Your task to perform on an android device: toggle data saver in the chrome app Image 0: 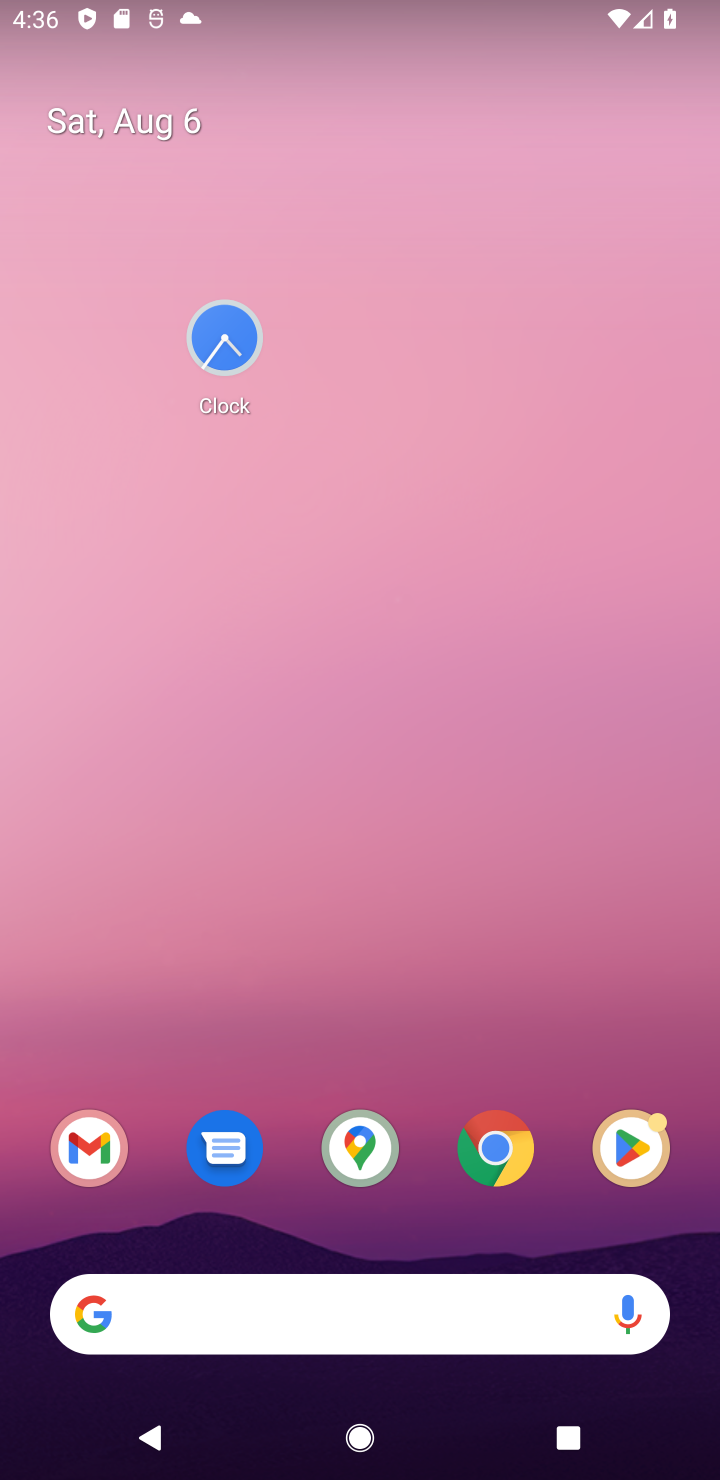
Step 0: click (564, 283)
Your task to perform on an android device: toggle data saver in the chrome app Image 1: 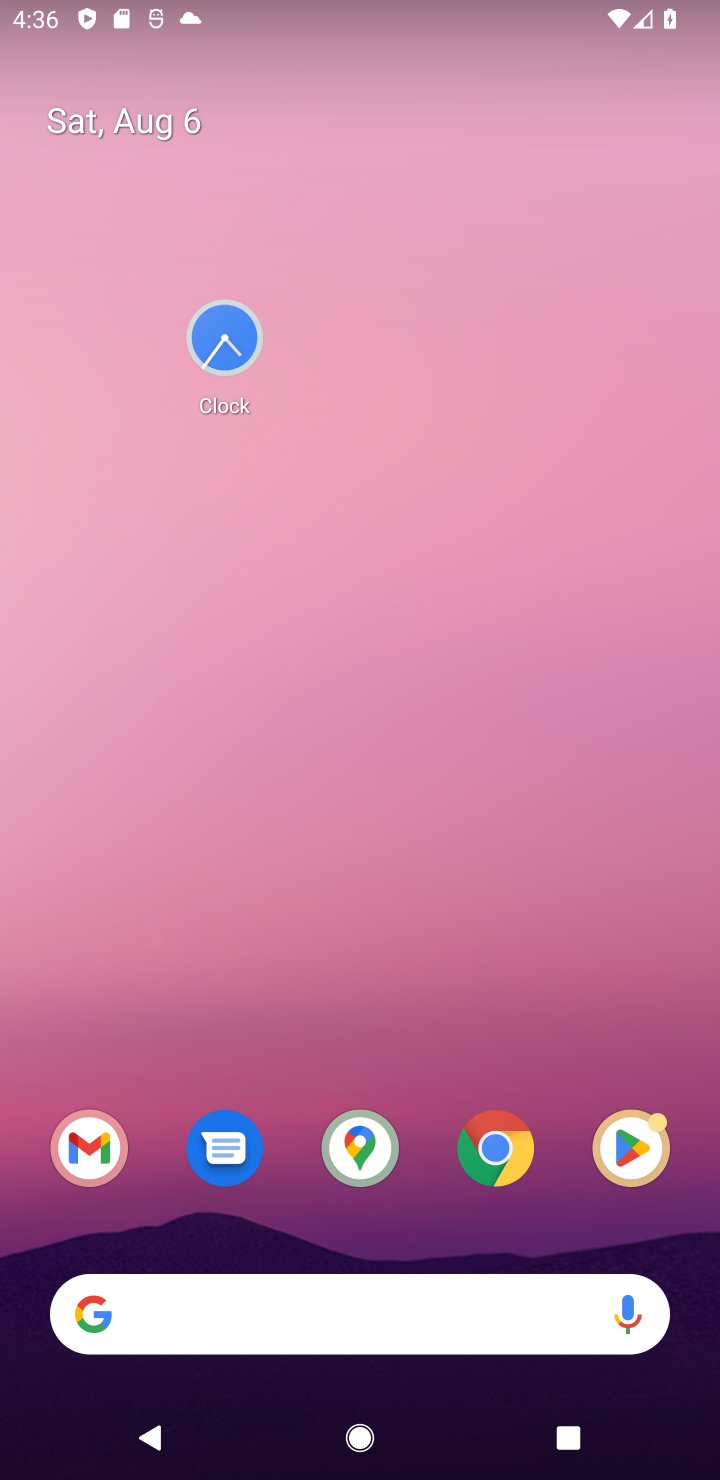
Step 1: drag from (334, 1220) to (329, 648)
Your task to perform on an android device: toggle data saver in the chrome app Image 2: 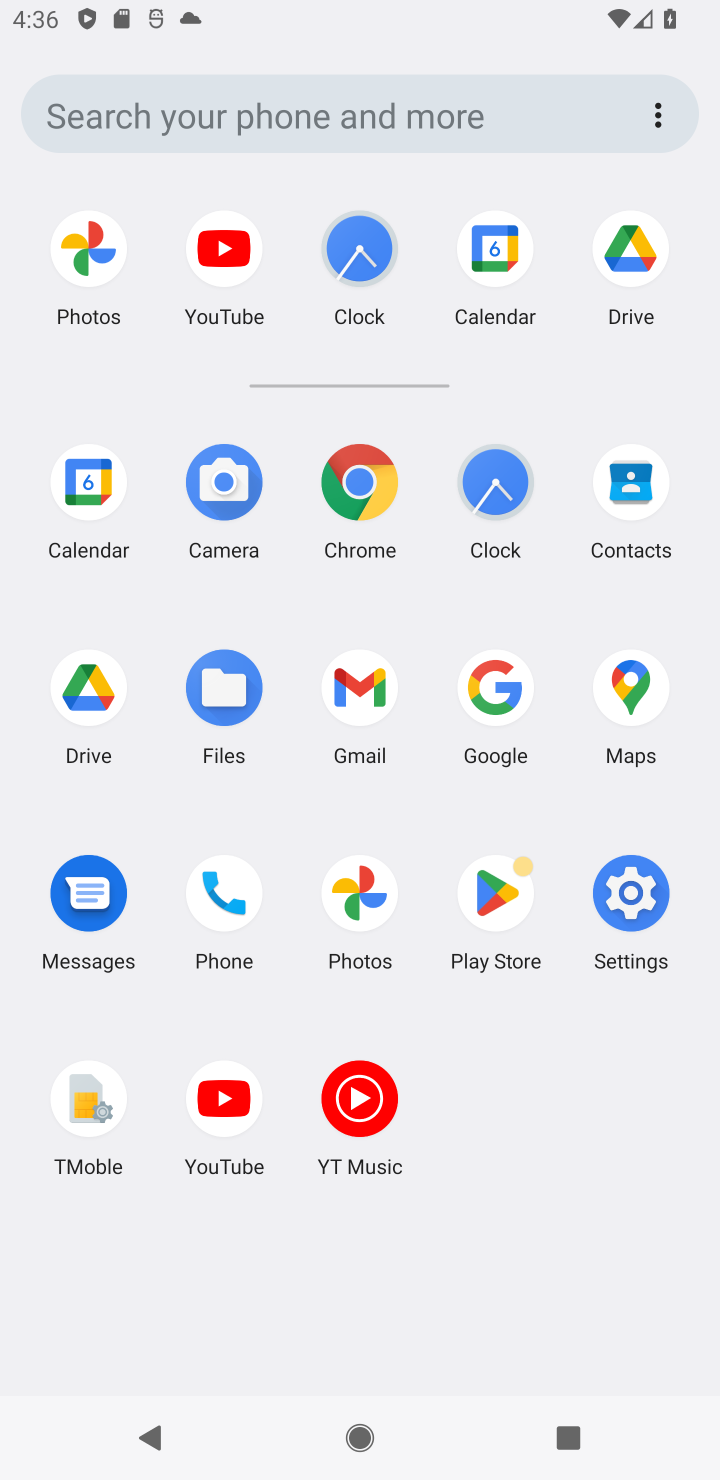
Step 2: click (371, 478)
Your task to perform on an android device: toggle data saver in the chrome app Image 3: 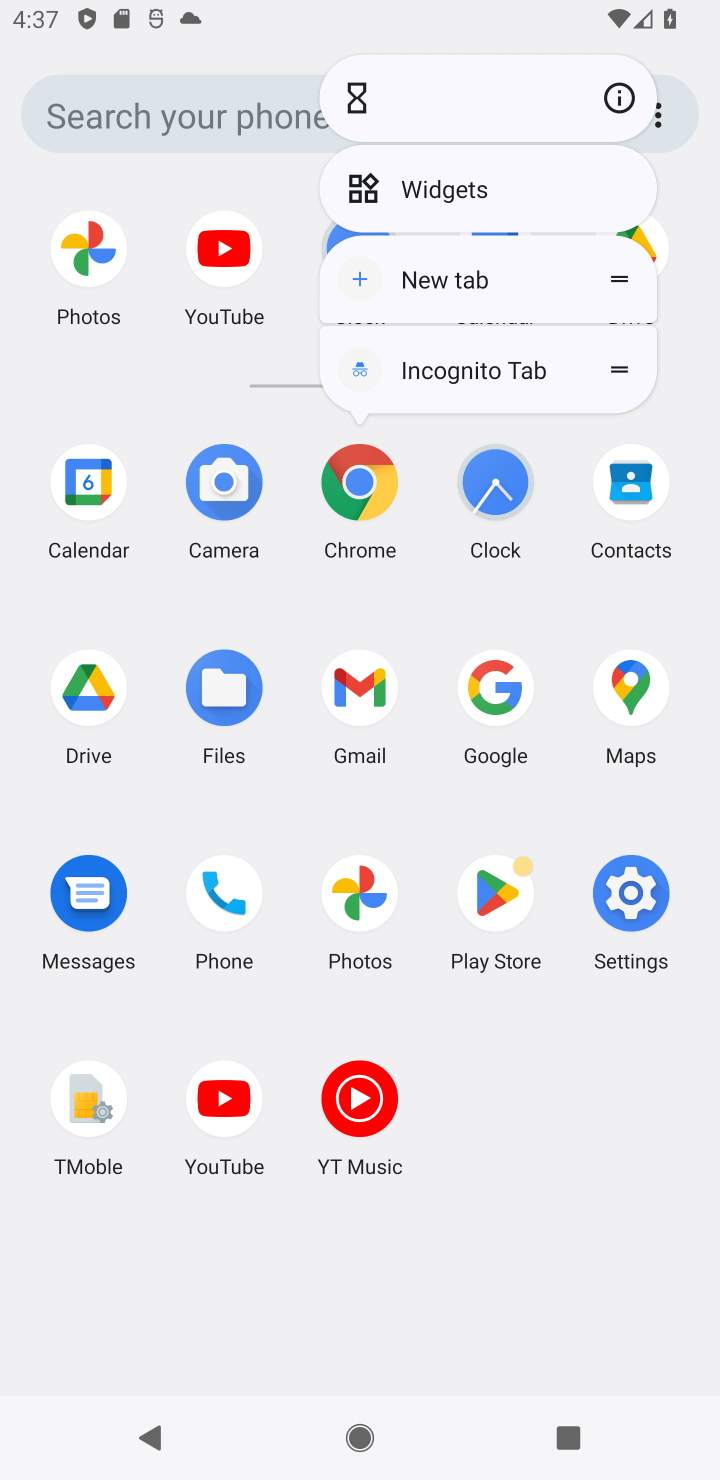
Step 3: click (618, 106)
Your task to perform on an android device: toggle data saver in the chrome app Image 4: 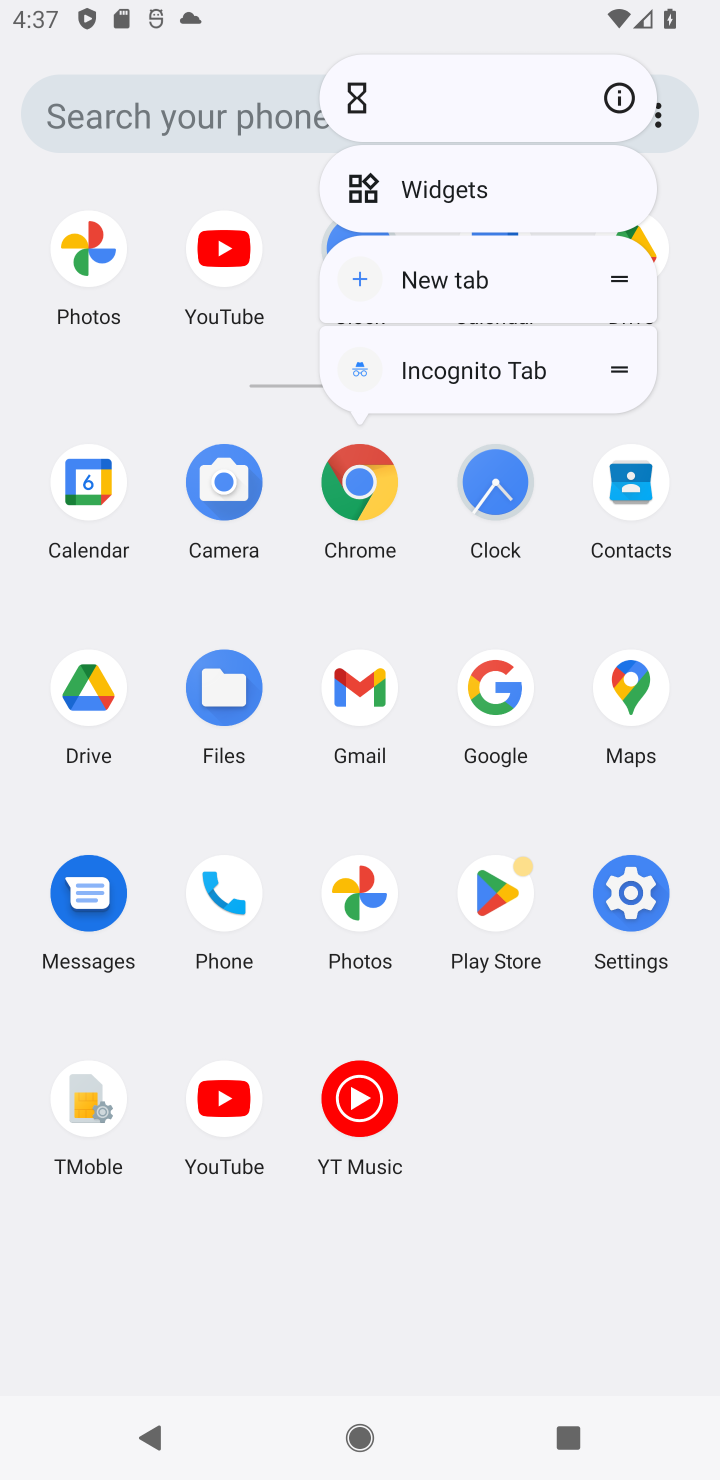
Step 4: click (621, 83)
Your task to perform on an android device: toggle data saver in the chrome app Image 5: 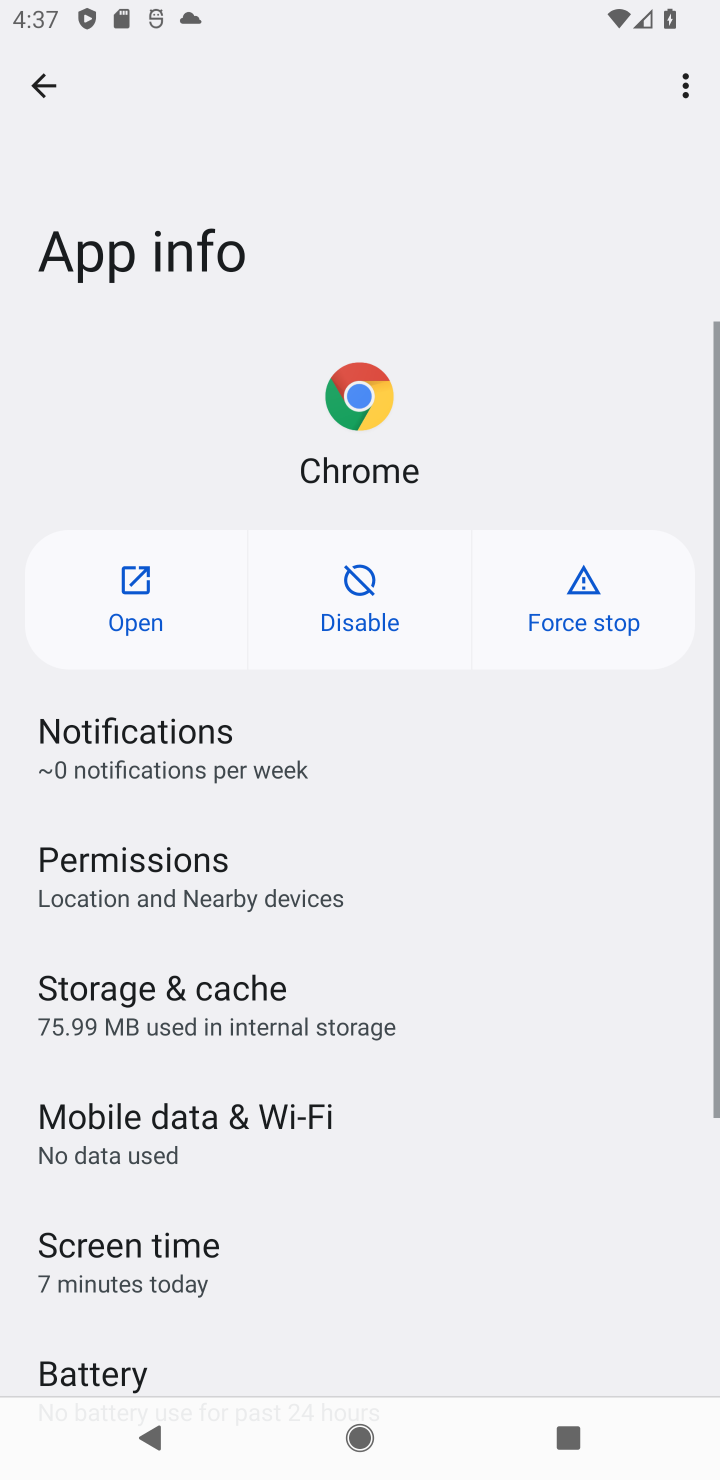
Step 5: click (145, 568)
Your task to perform on an android device: toggle data saver in the chrome app Image 6: 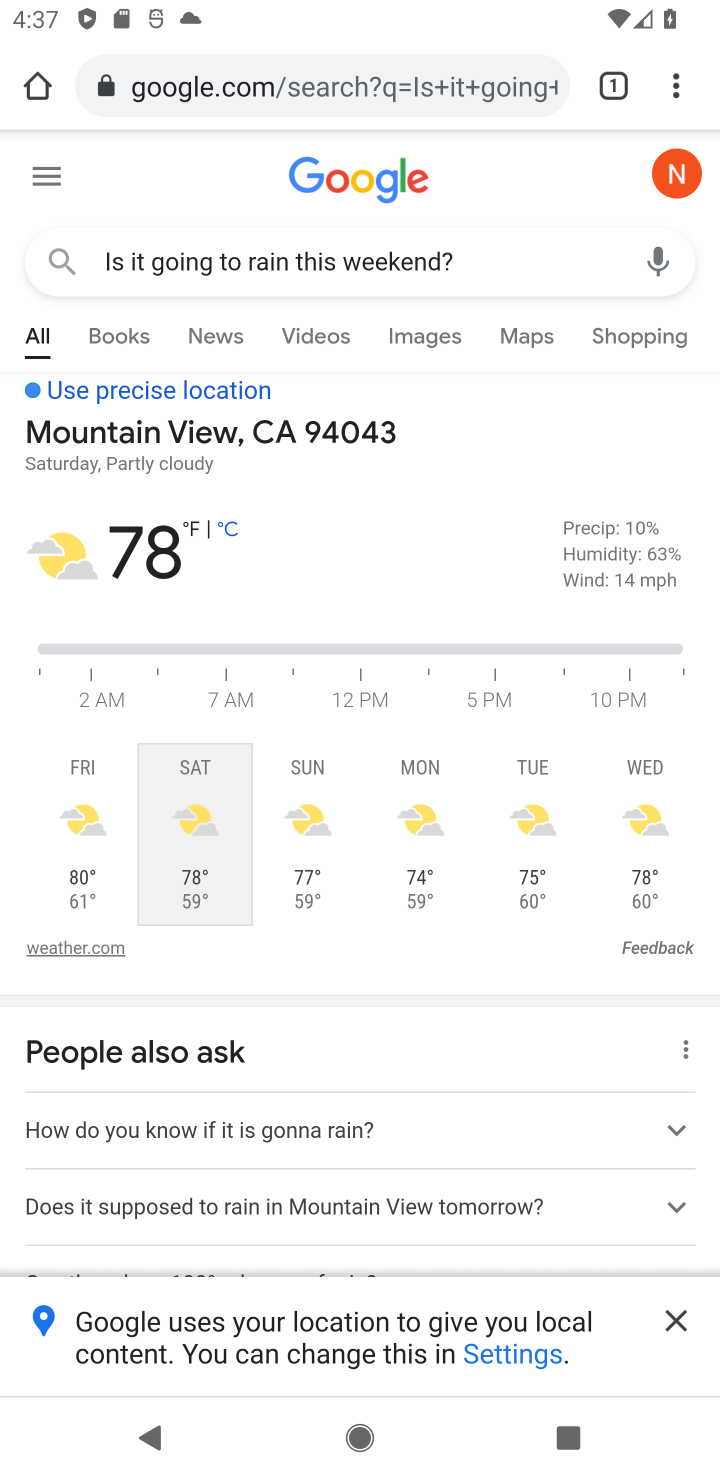
Step 6: drag from (672, 87) to (466, 1148)
Your task to perform on an android device: toggle data saver in the chrome app Image 7: 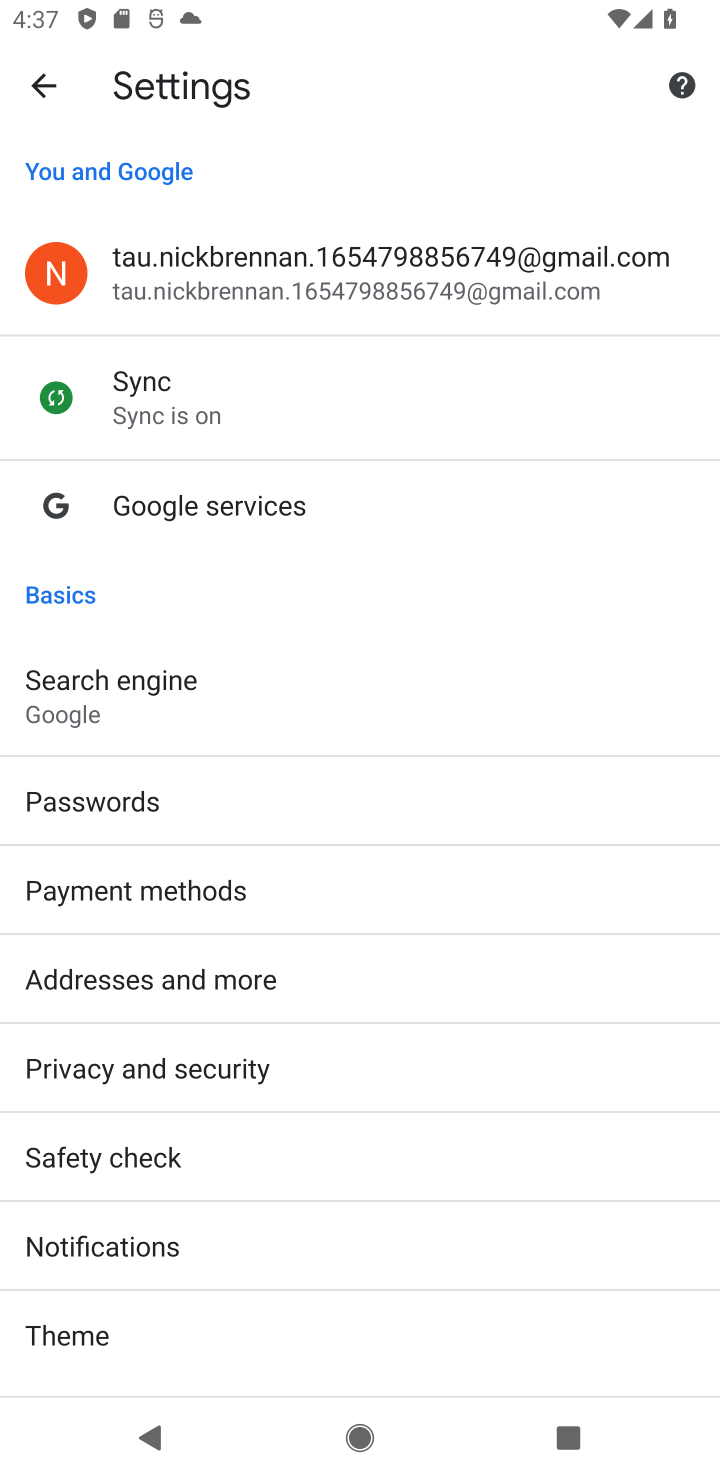
Step 7: click (426, 488)
Your task to perform on an android device: toggle data saver in the chrome app Image 8: 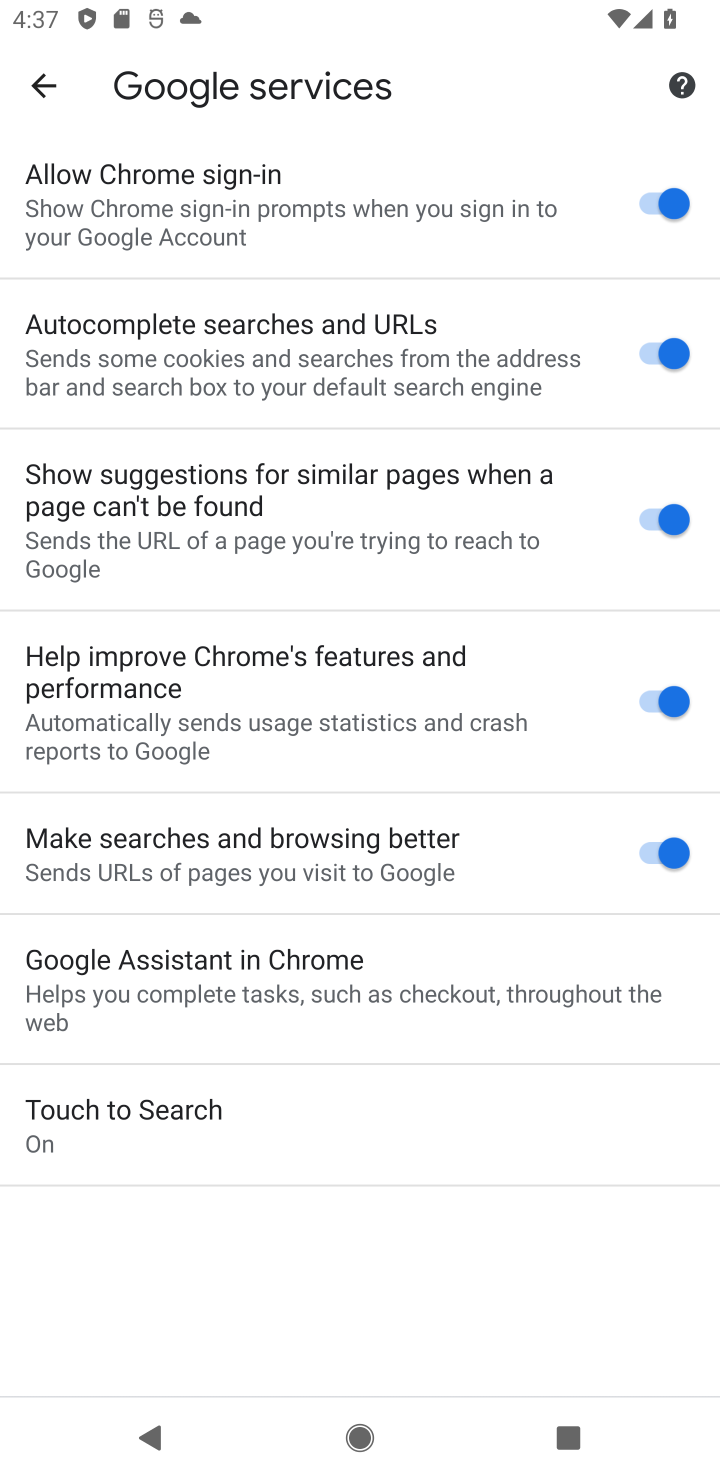
Step 8: drag from (384, 1156) to (457, 348)
Your task to perform on an android device: toggle data saver in the chrome app Image 9: 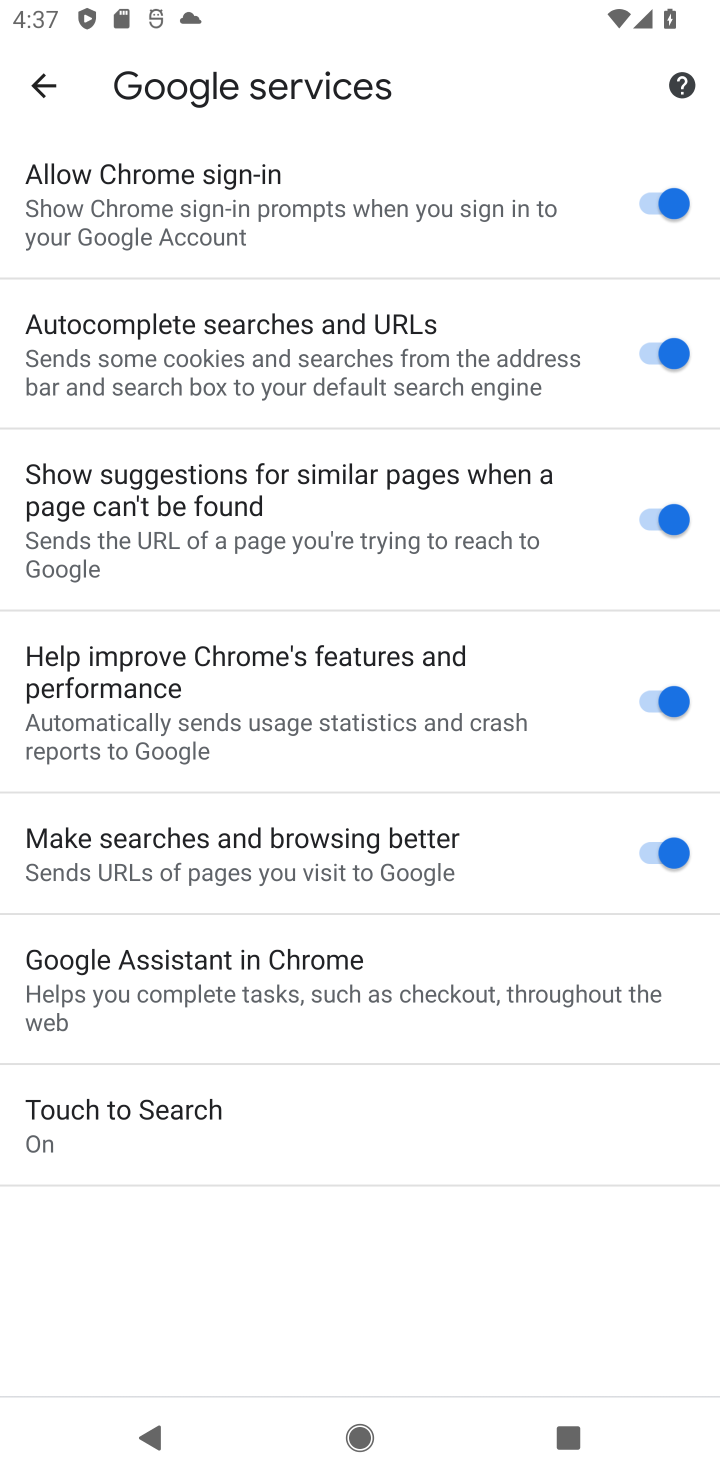
Step 9: drag from (355, 247) to (534, 1331)
Your task to perform on an android device: toggle data saver in the chrome app Image 10: 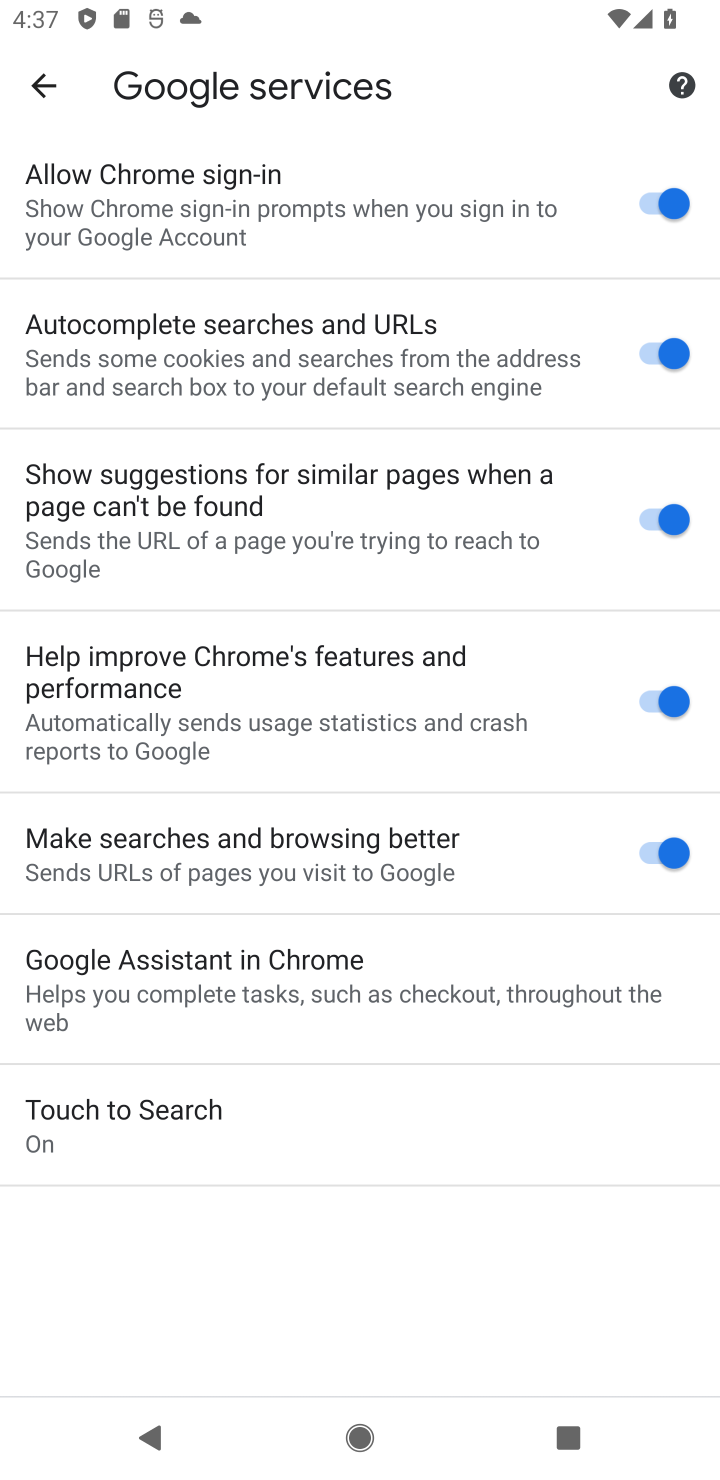
Step 10: drag from (300, 310) to (471, 1409)
Your task to perform on an android device: toggle data saver in the chrome app Image 11: 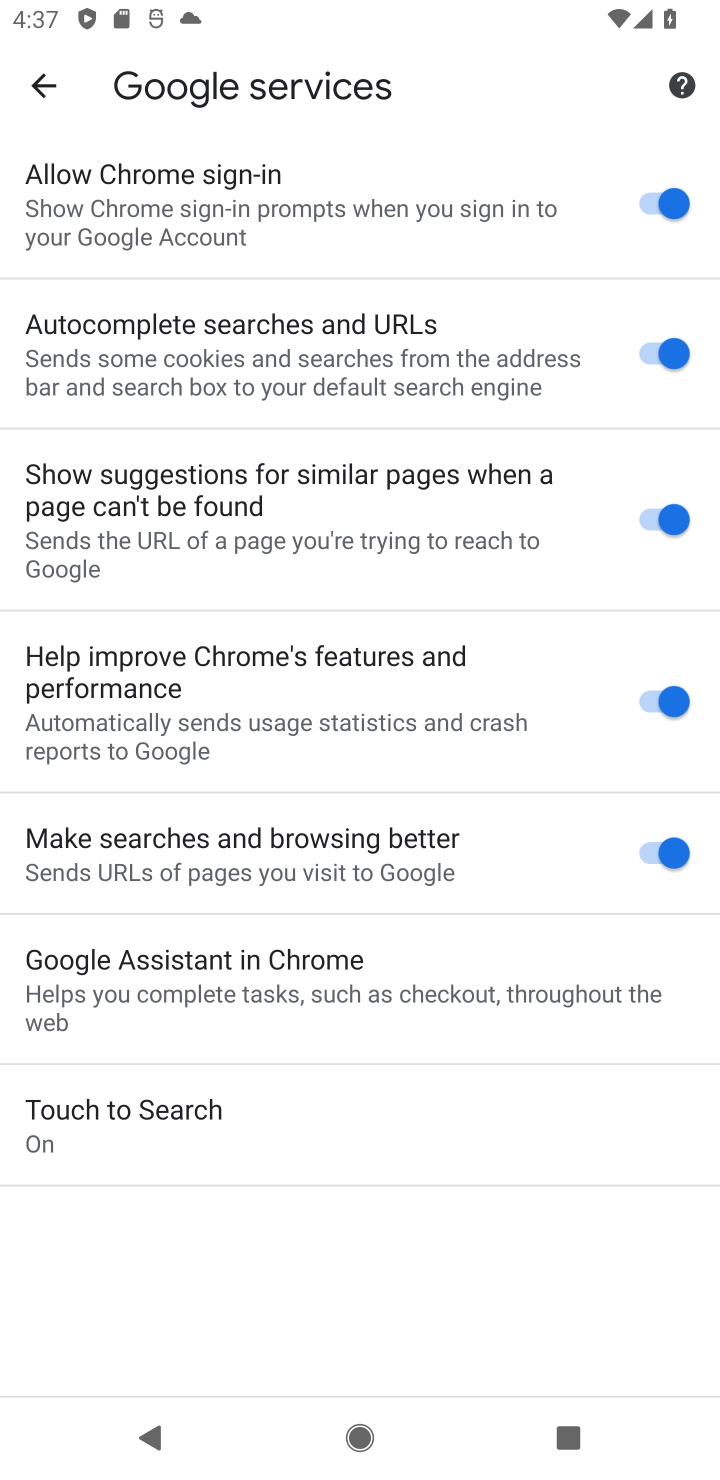
Step 11: click (522, 1478)
Your task to perform on an android device: toggle data saver in the chrome app Image 12: 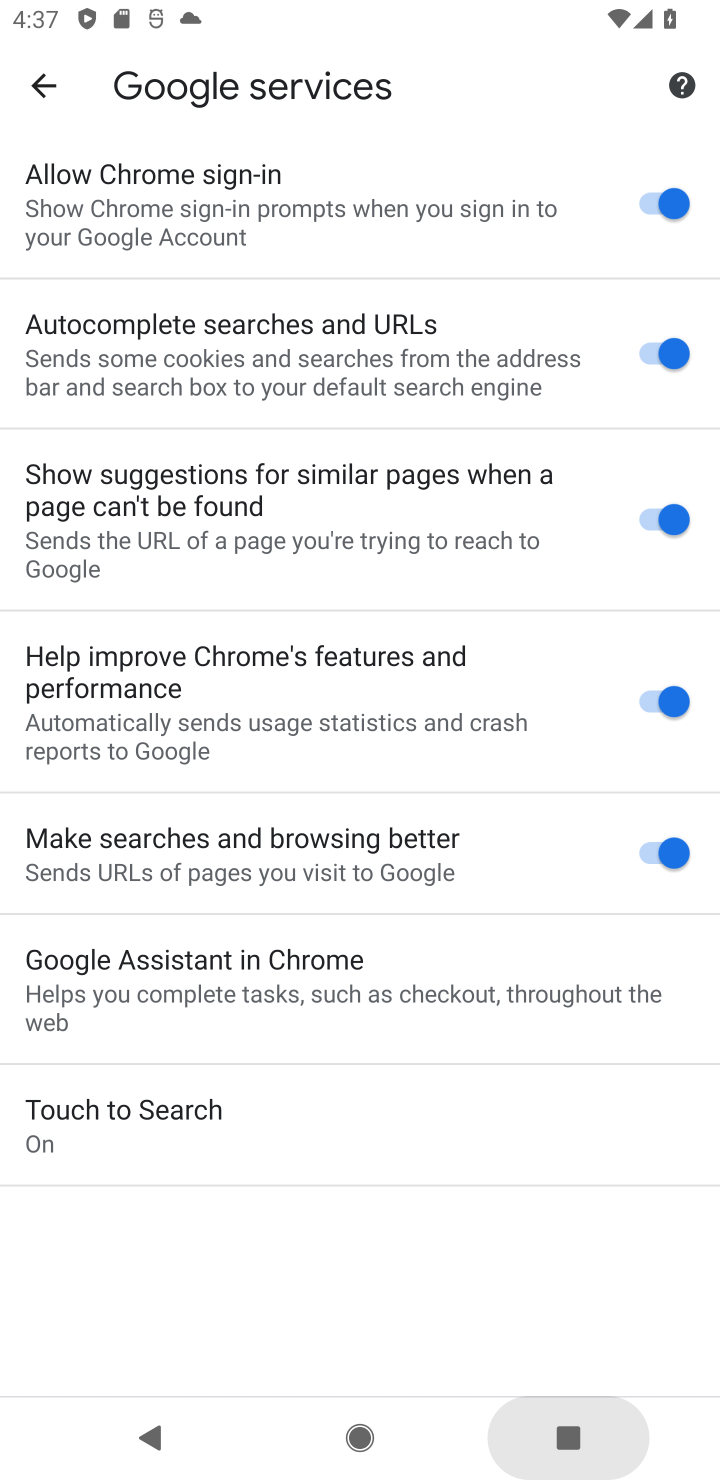
Step 12: drag from (376, 1035) to (390, 633)
Your task to perform on an android device: toggle data saver in the chrome app Image 13: 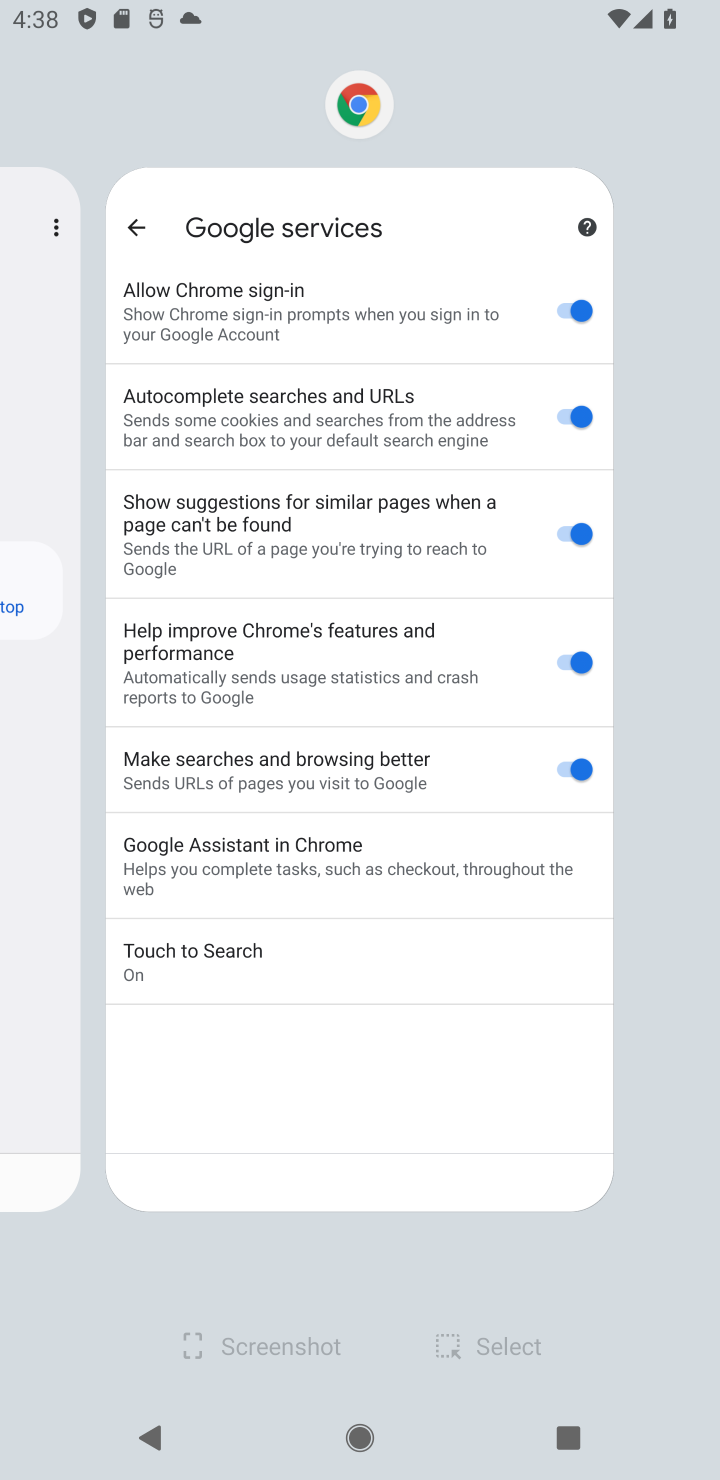
Step 13: click (369, 1118)
Your task to perform on an android device: toggle data saver in the chrome app Image 14: 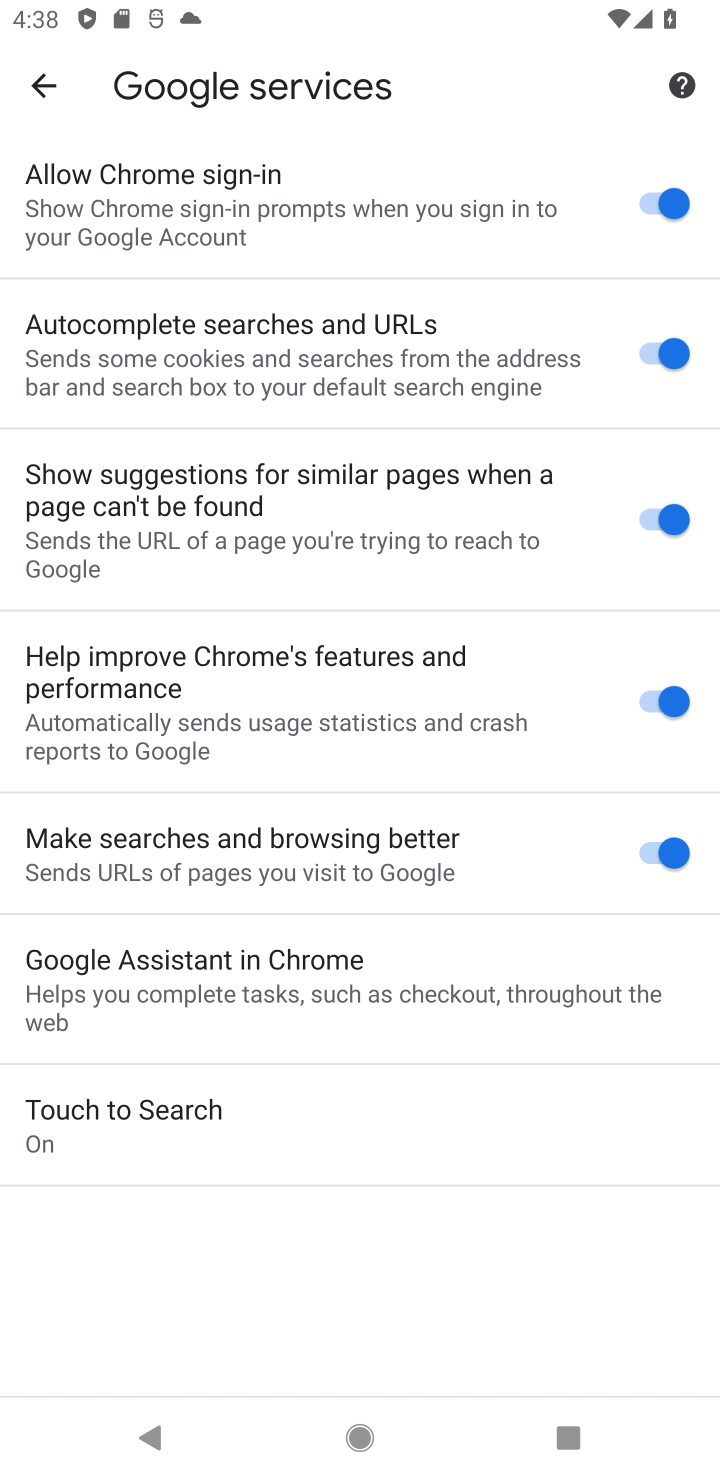
Step 14: drag from (273, 1256) to (273, 736)
Your task to perform on an android device: toggle data saver in the chrome app Image 15: 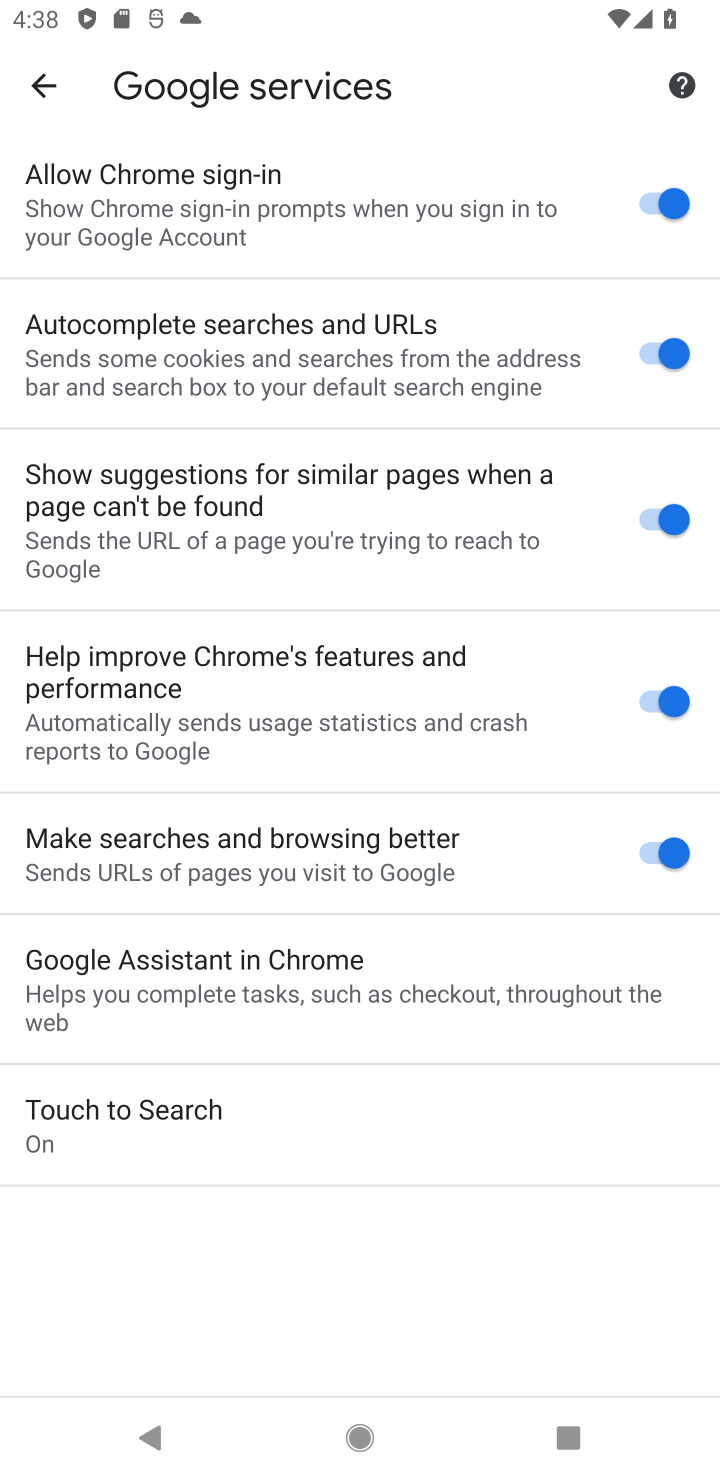
Step 15: drag from (327, 335) to (355, 1245)
Your task to perform on an android device: toggle data saver in the chrome app Image 16: 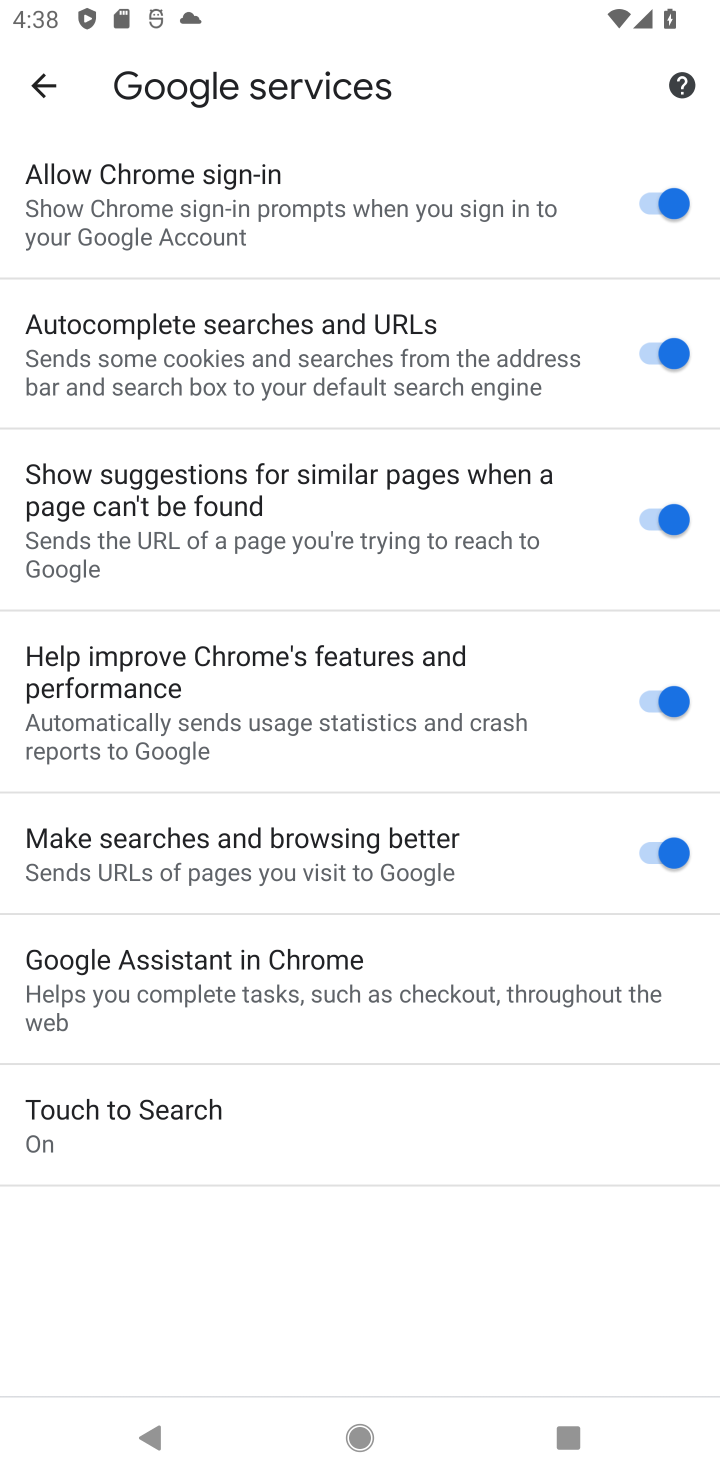
Step 16: drag from (360, 1252) to (358, 600)
Your task to perform on an android device: toggle data saver in the chrome app Image 17: 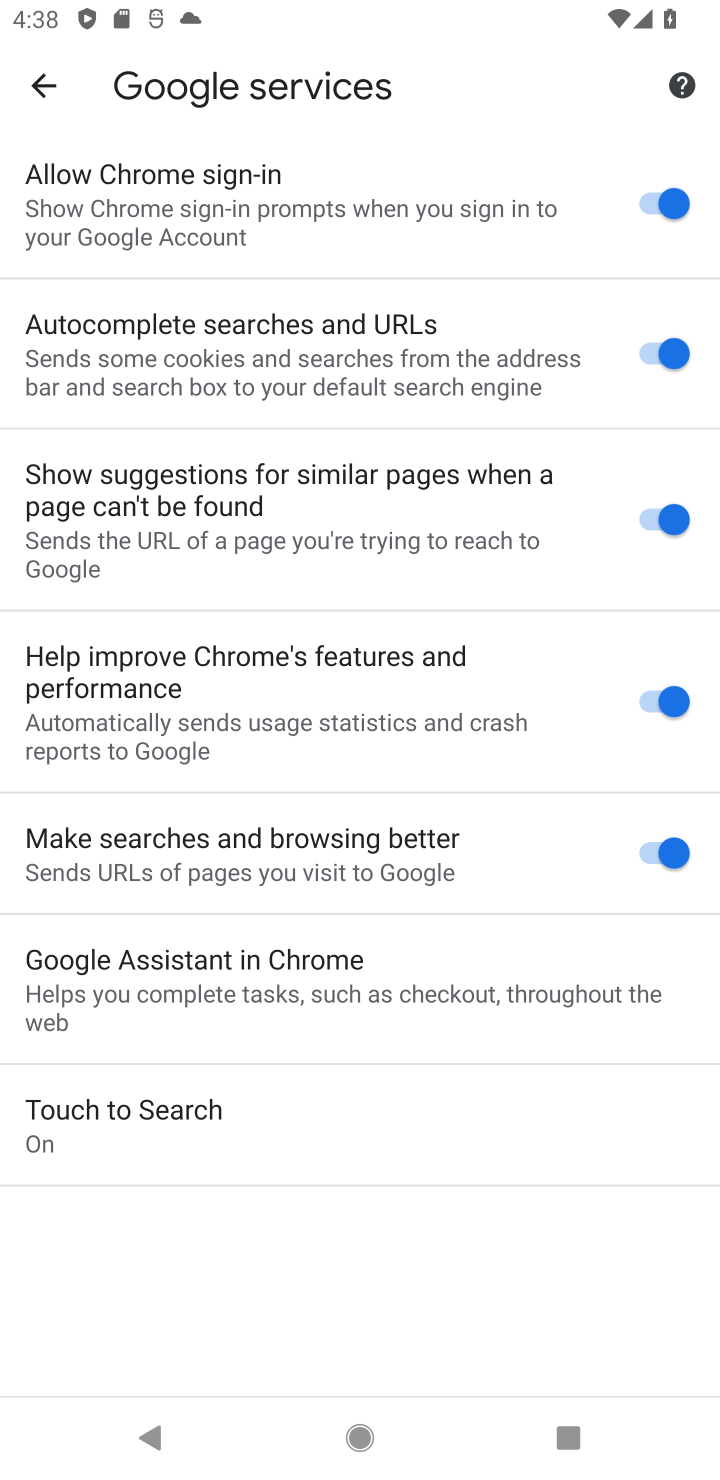
Step 17: drag from (350, 358) to (345, 1257)
Your task to perform on an android device: toggle data saver in the chrome app Image 18: 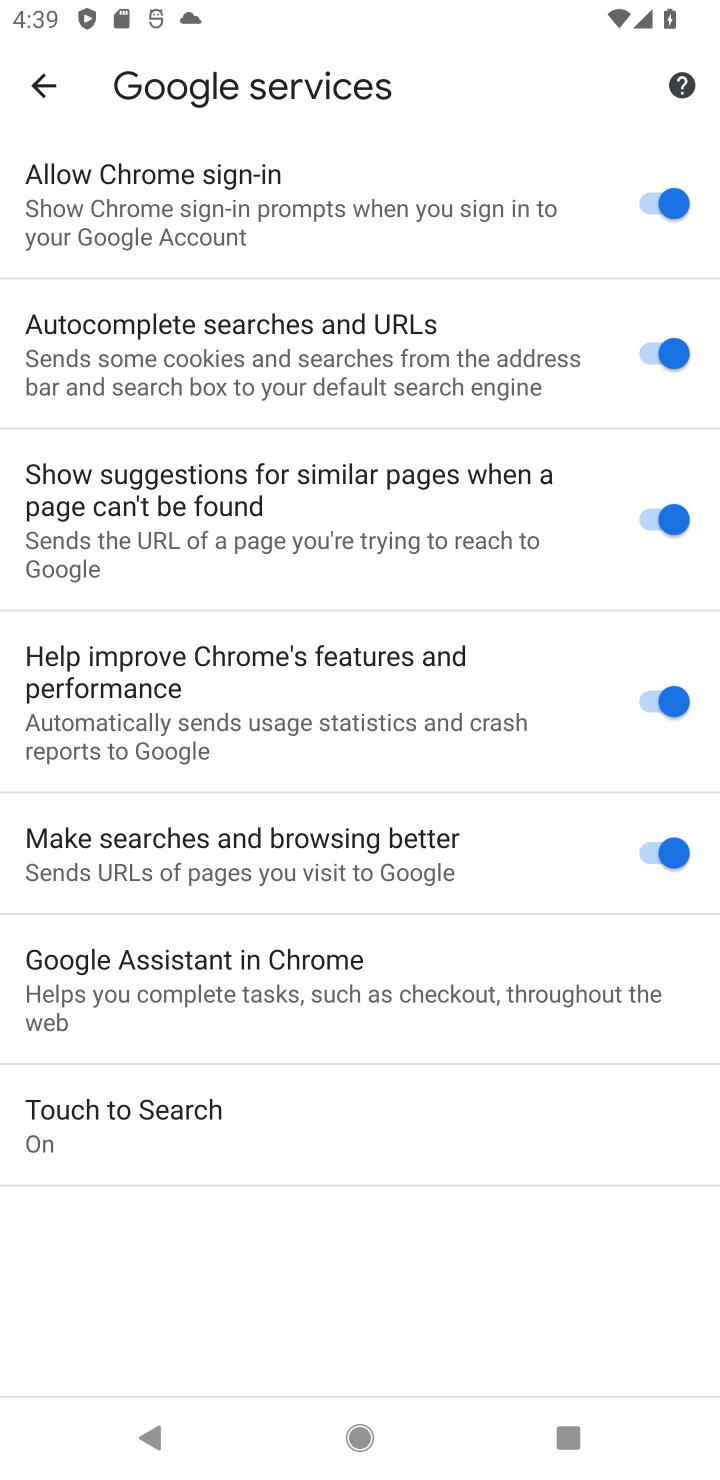
Step 18: click (34, 92)
Your task to perform on an android device: toggle data saver in the chrome app Image 19: 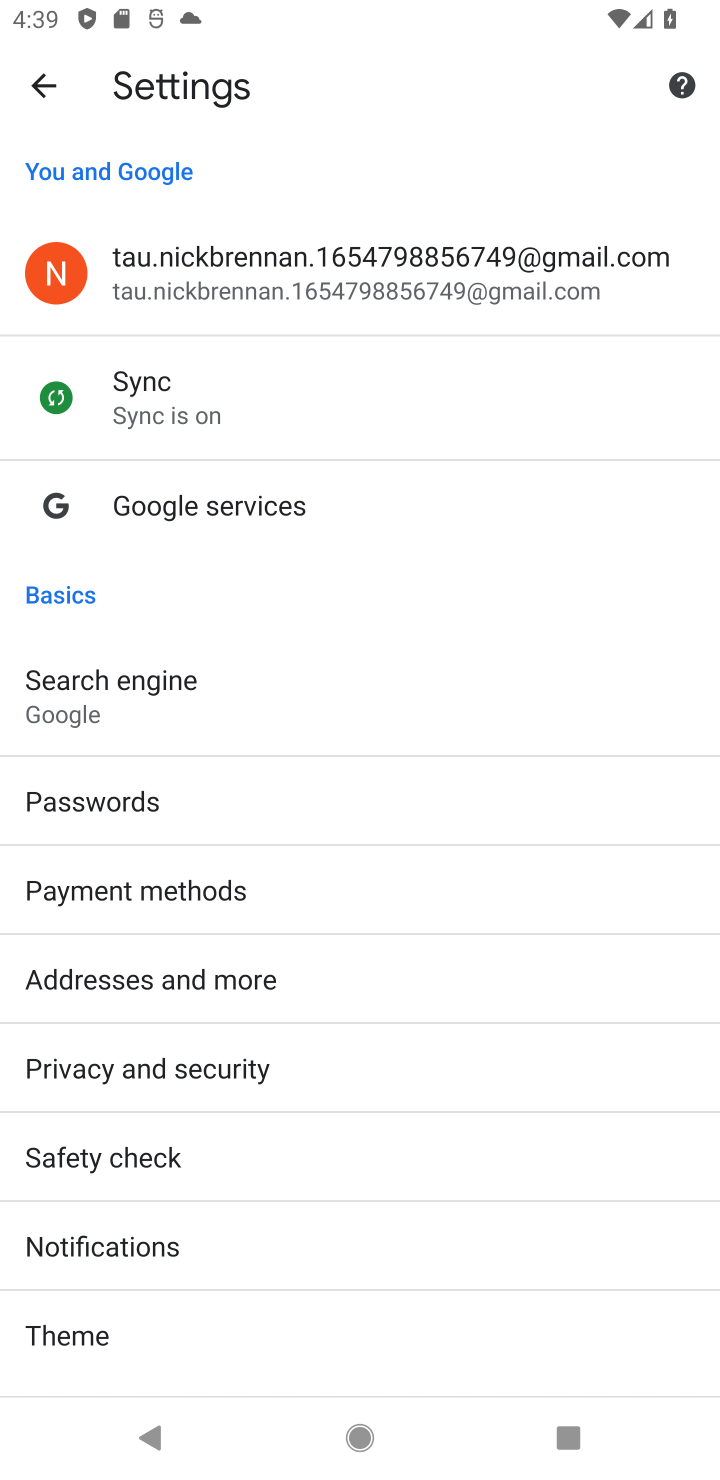
Step 19: drag from (286, 1180) to (410, 231)
Your task to perform on an android device: toggle data saver in the chrome app Image 20: 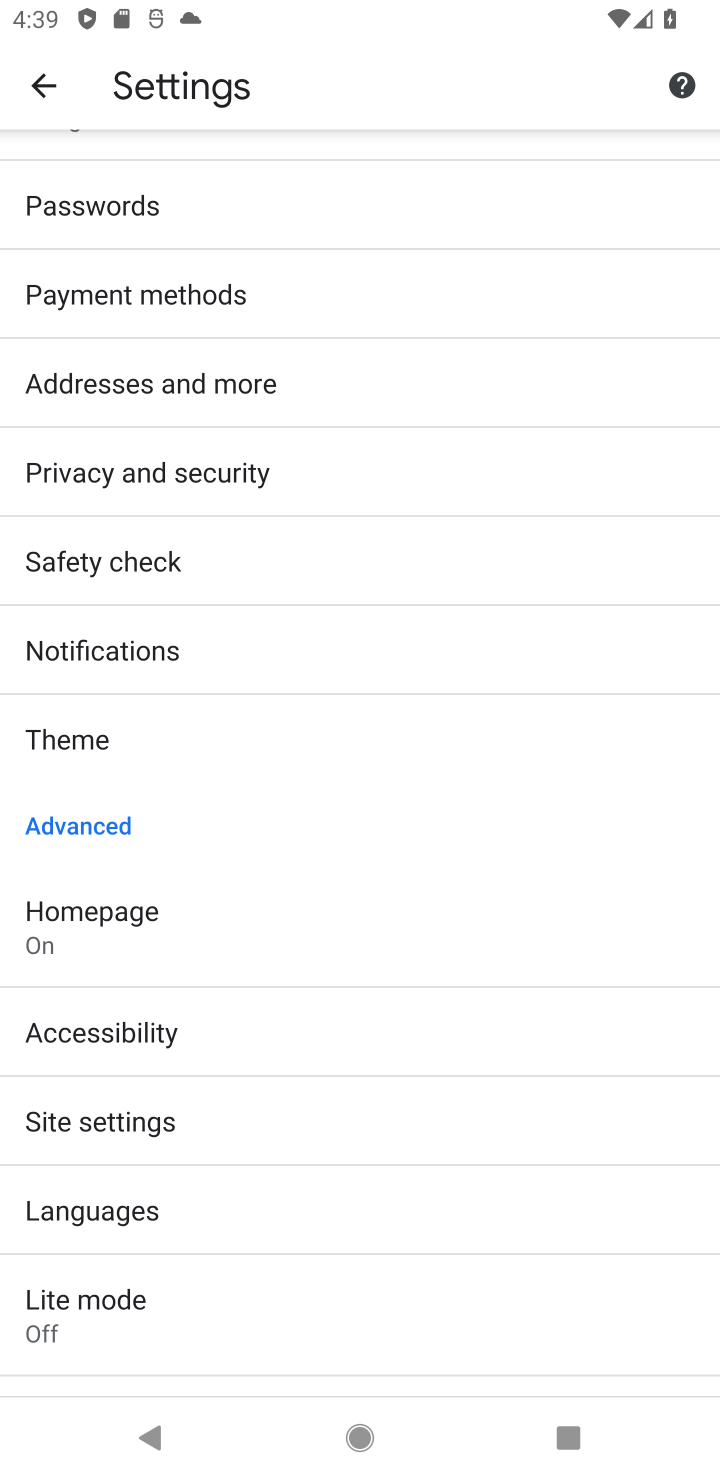
Step 20: drag from (279, 1070) to (385, 233)
Your task to perform on an android device: toggle data saver in the chrome app Image 21: 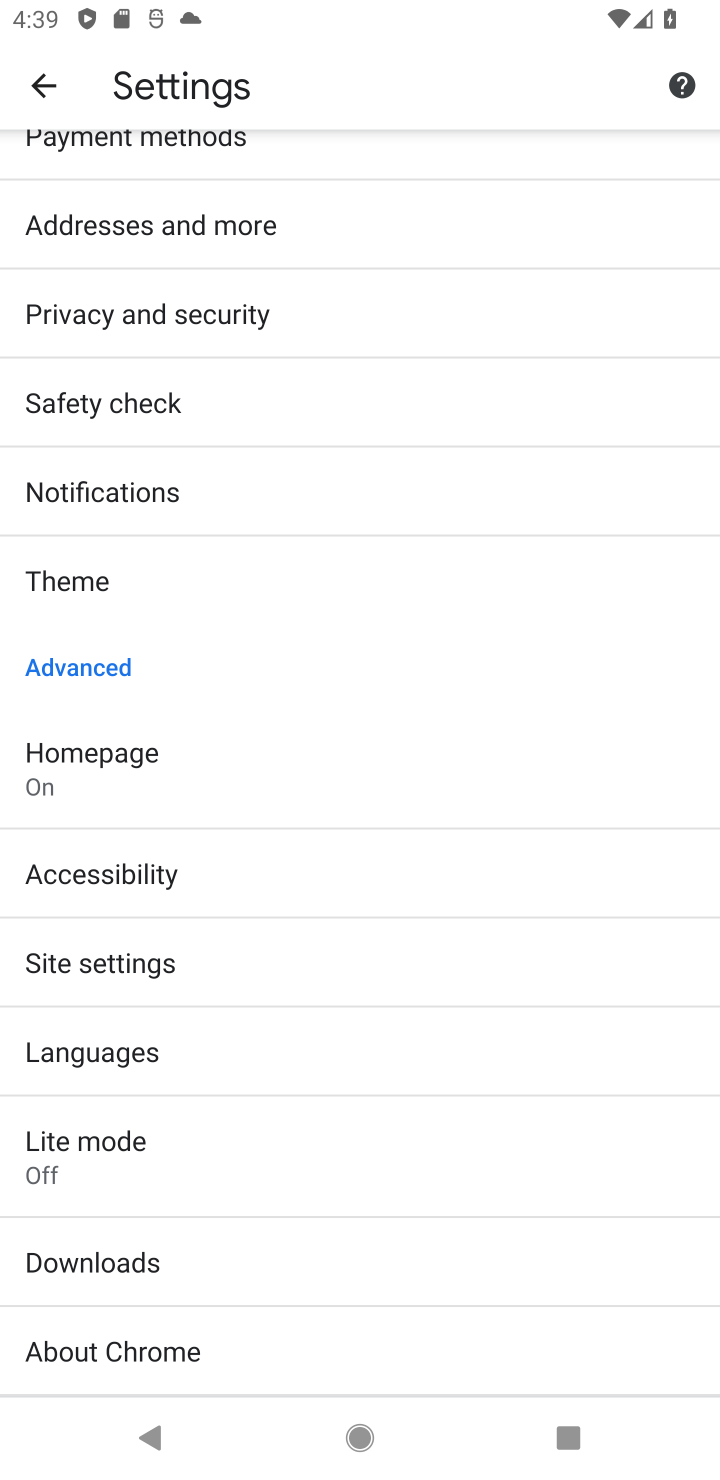
Step 21: click (133, 1150)
Your task to perform on an android device: toggle data saver in the chrome app Image 22: 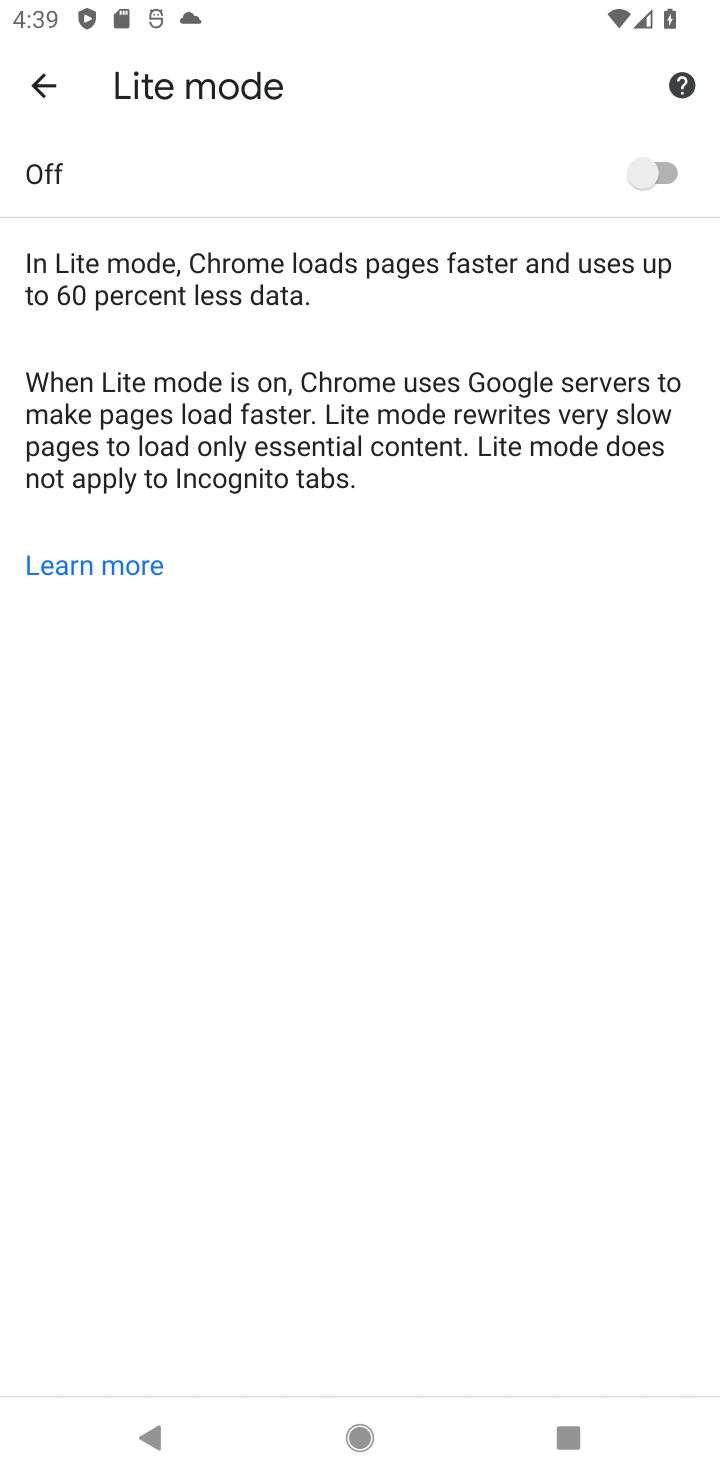
Step 22: task complete